Your task to perform on an android device: turn off picture-in-picture Image 0: 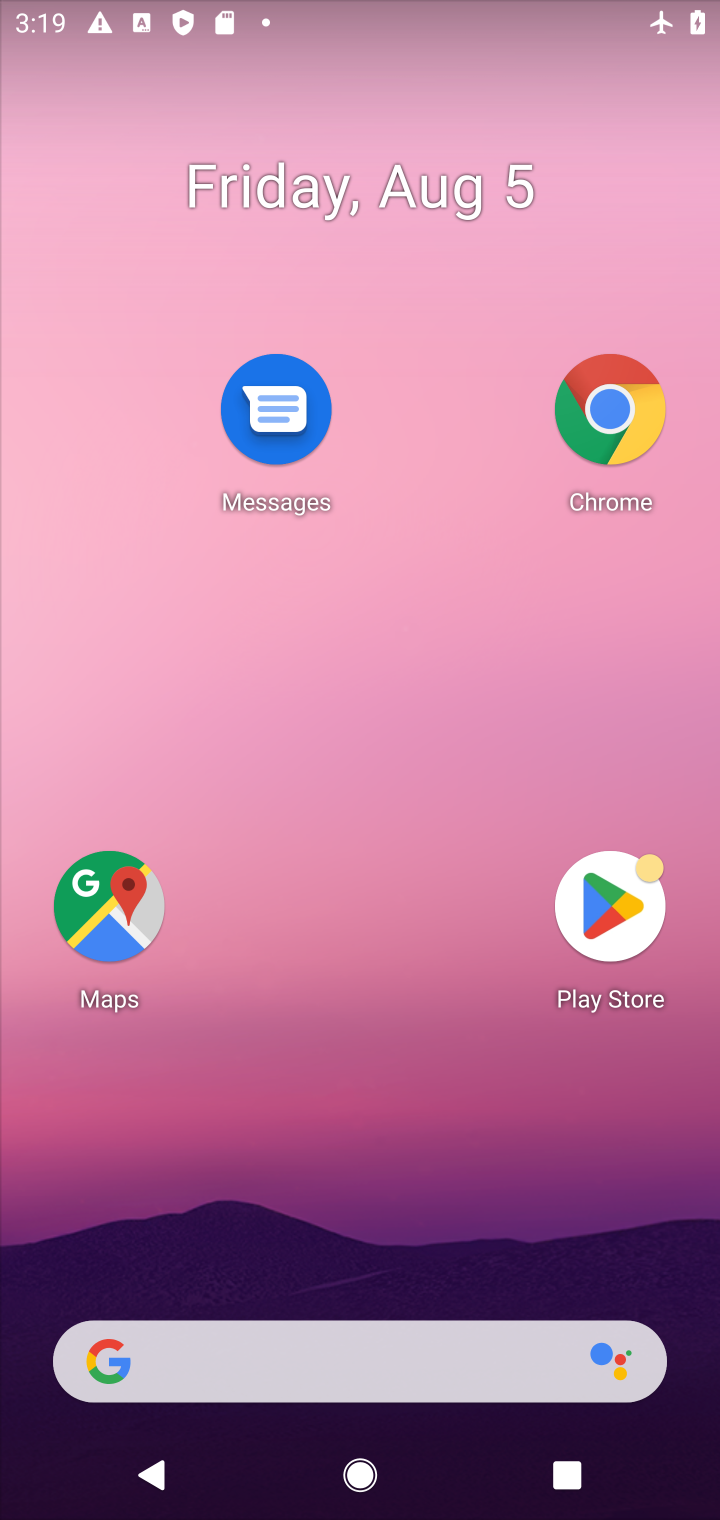
Step 0: click (602, 466)
Your task to perform on an android device: turn off picture-in-picture Image 1: 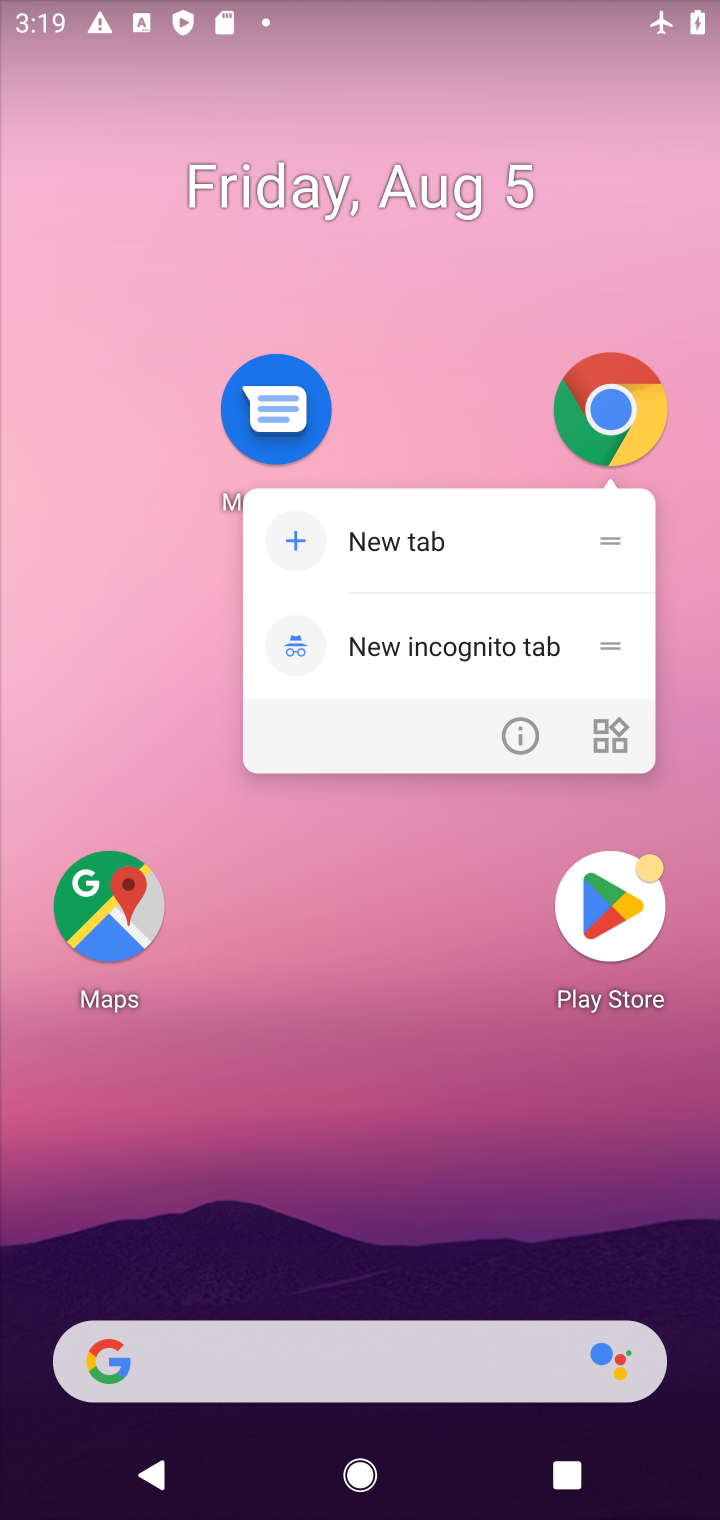
Step 1: click (523, 733)
Your task to perform on an android device: turn off picture-in-picture Image 2: 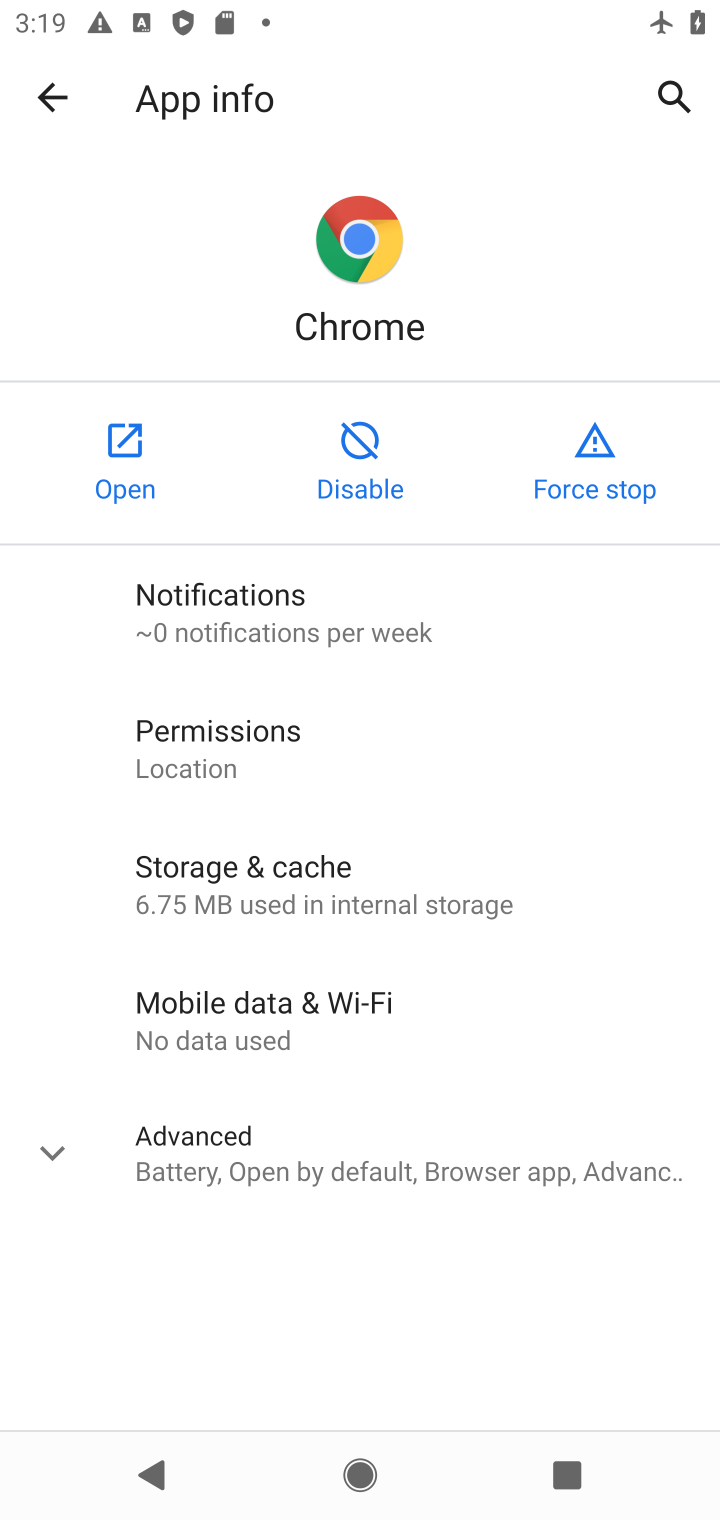
Step 2: click (244, 1155)
Your task to perform on an android device: turn off picture-in-picture Image 3: 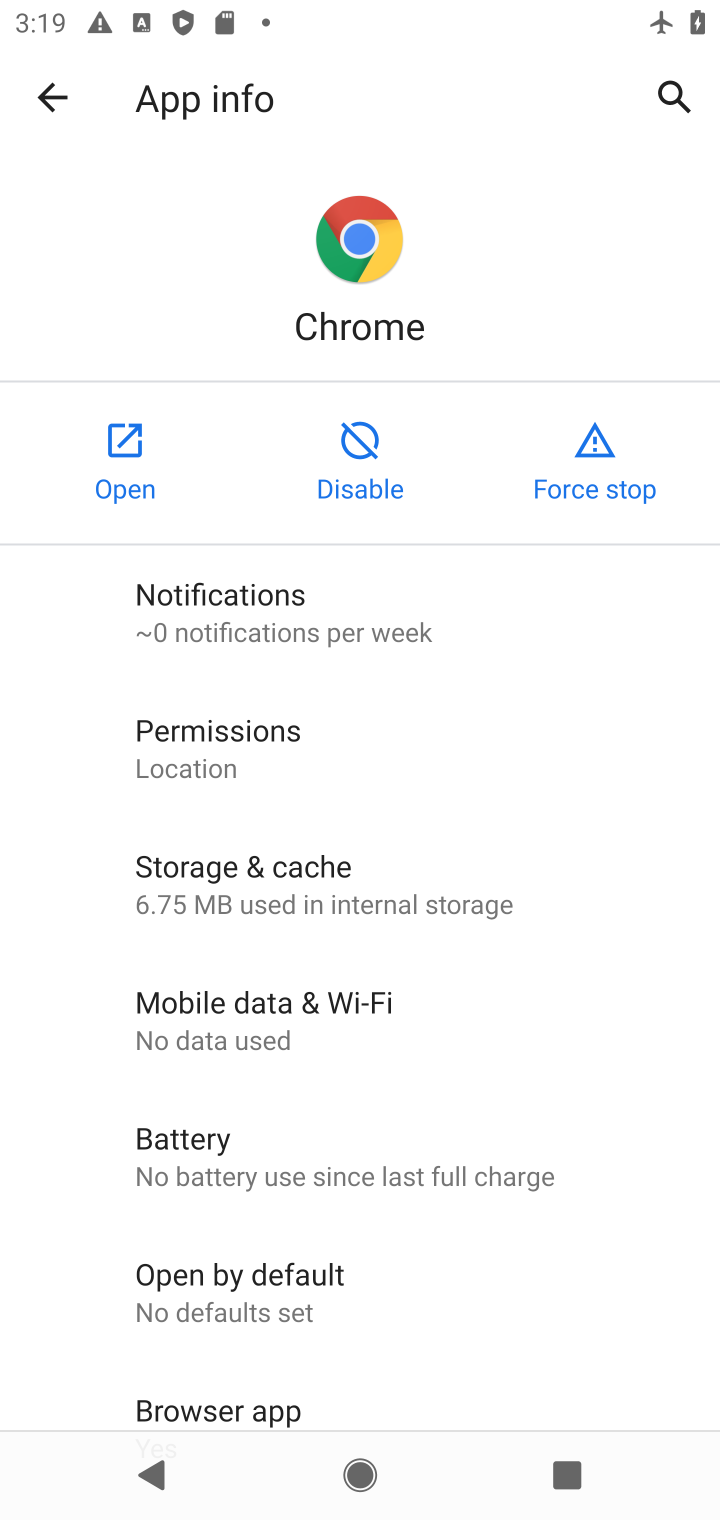
Step 3: drag from (341, 1317) to (402, 799)
Your task to perform on an android device: turn off picture-in-picture Image 4: 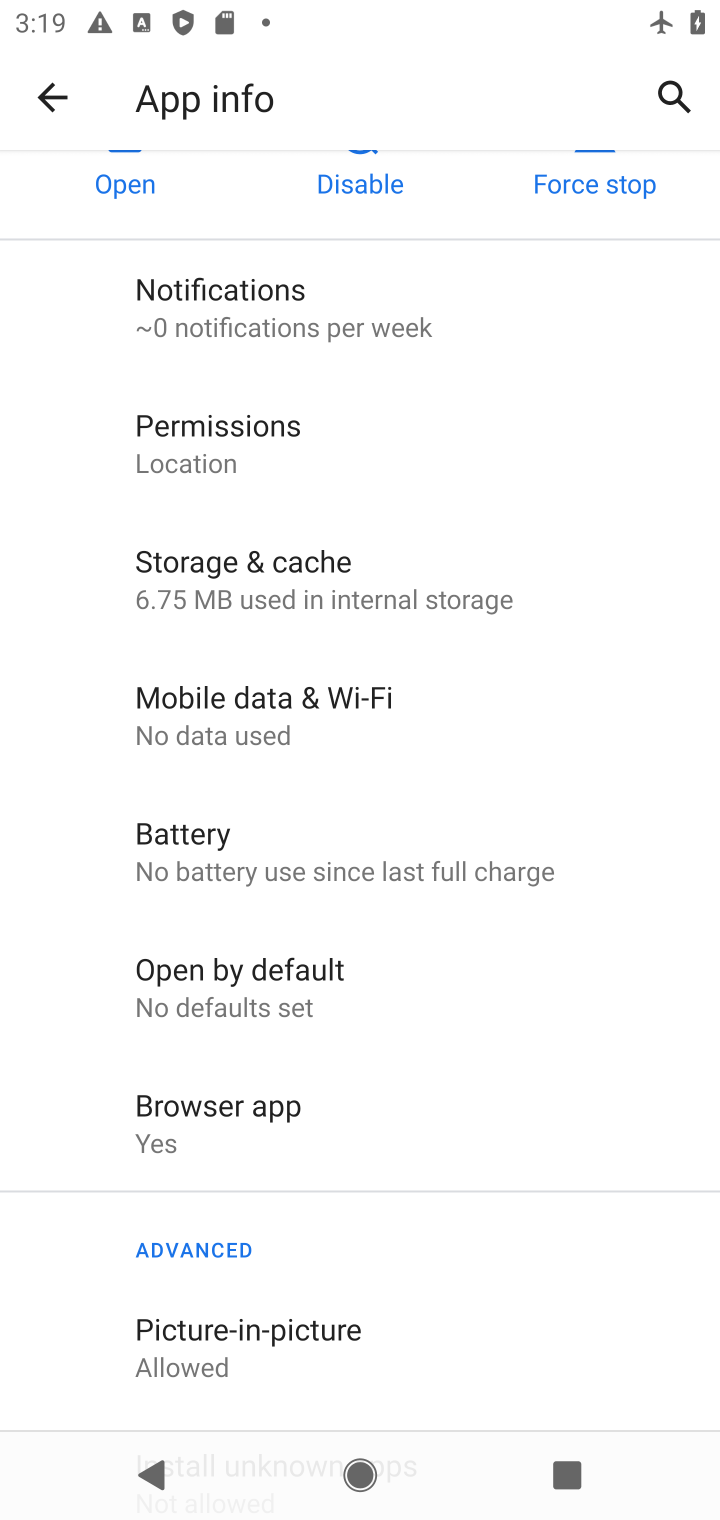
Step 4: click (296, 1354)
Your task to perform on an android device: turn off picture-in-picture Image 5: 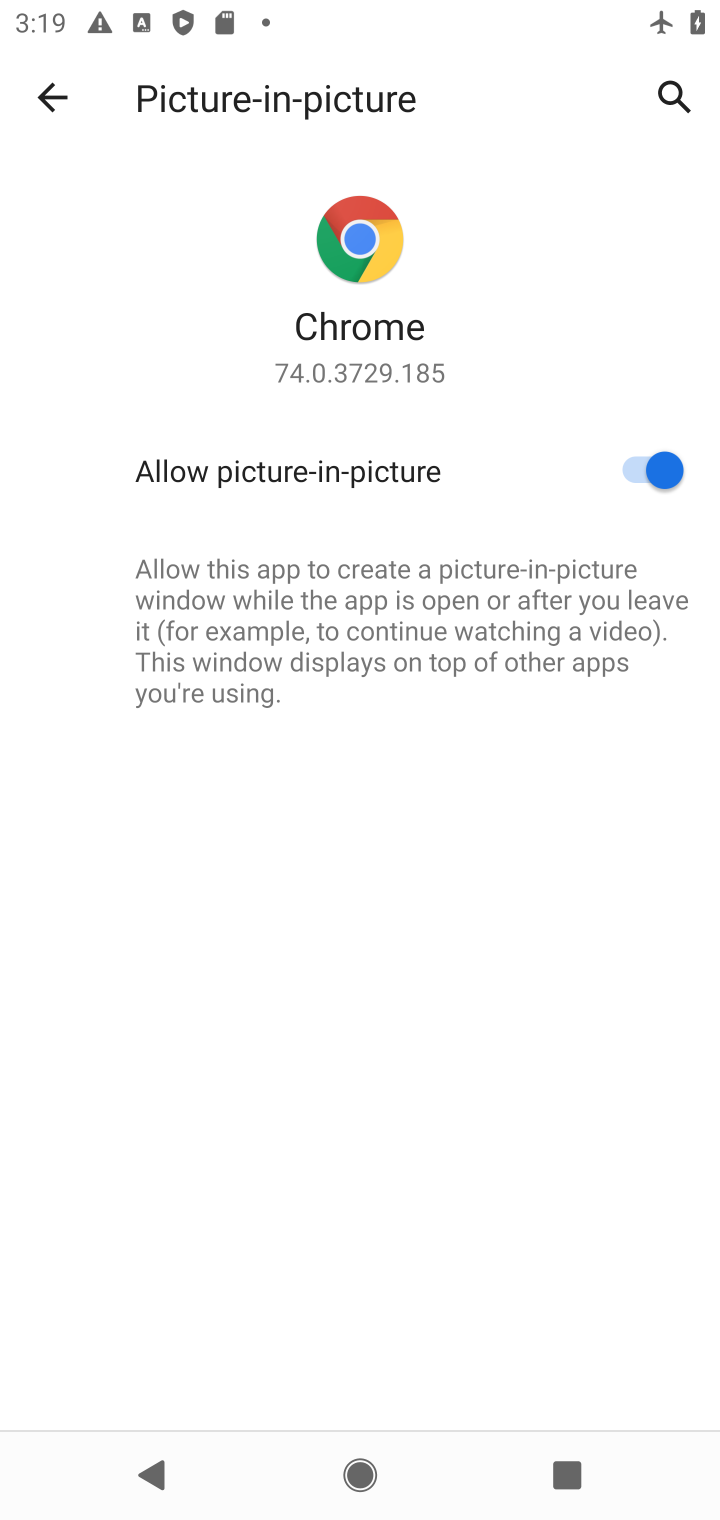
Step 5: click (654, 474)
Your task to perform on an android device: turn off picture-in-picture Image 6: 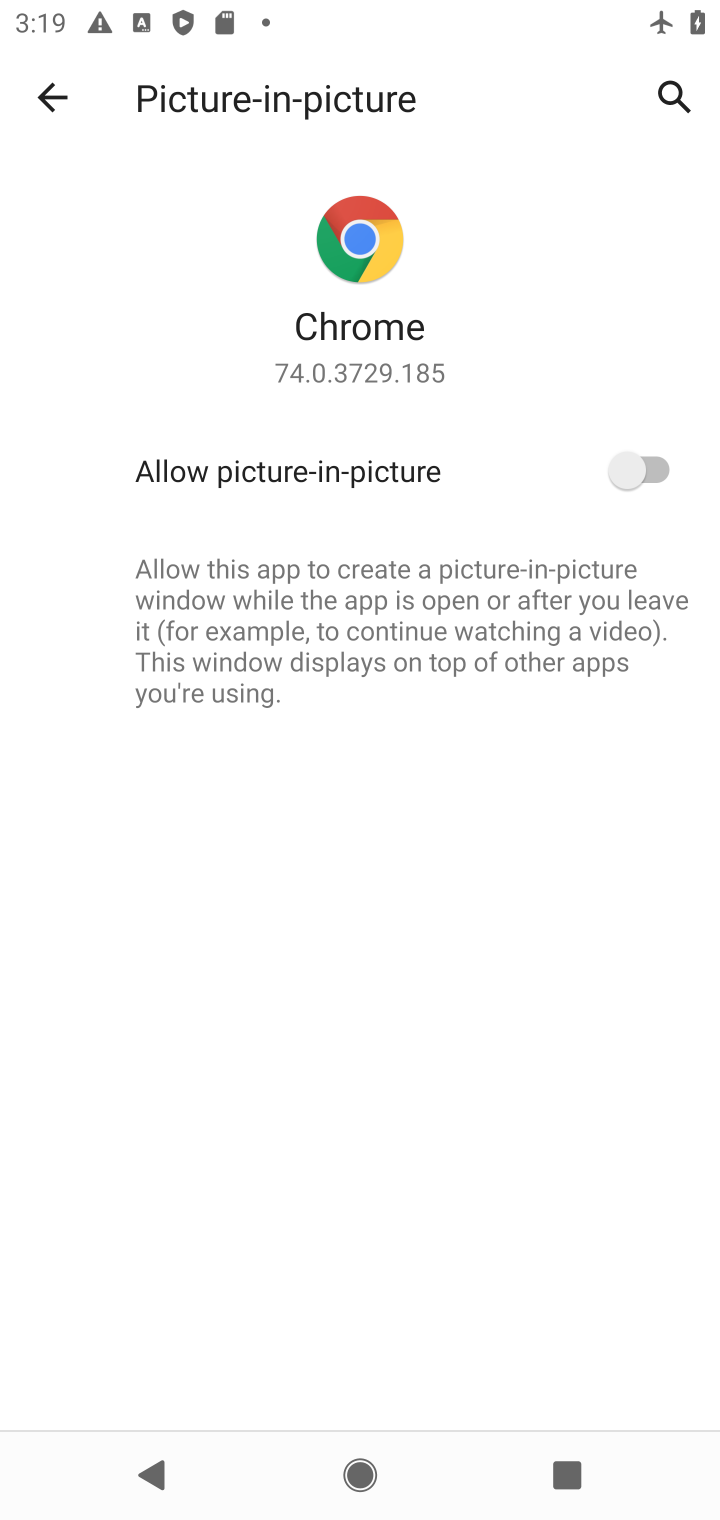
Step 6: task complete